Your task to perform on an android device: Search for seafood restaurants on Google Maps Image 0: 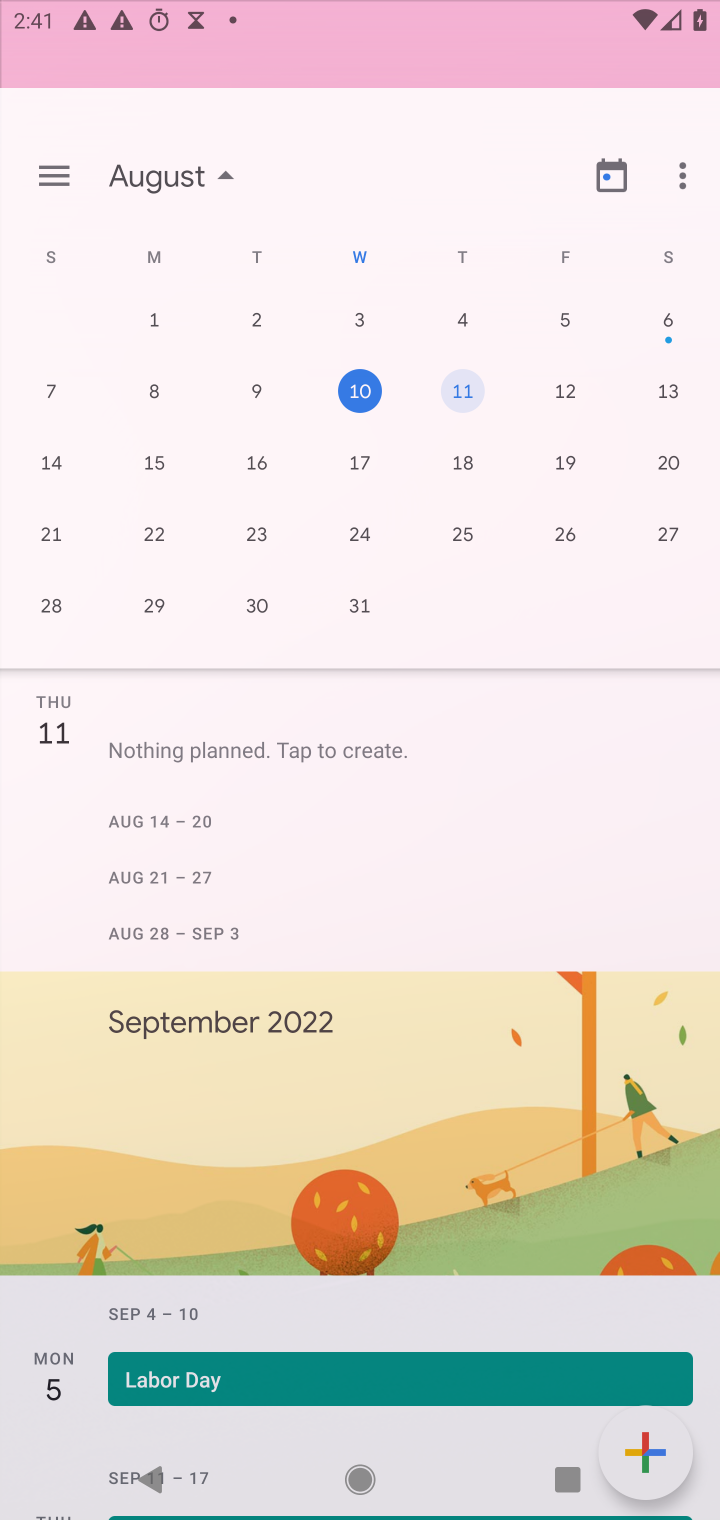
Step 0: press home button
Your task to perform on an android device: Search for seafood restaurants on Google Maps Image 1: 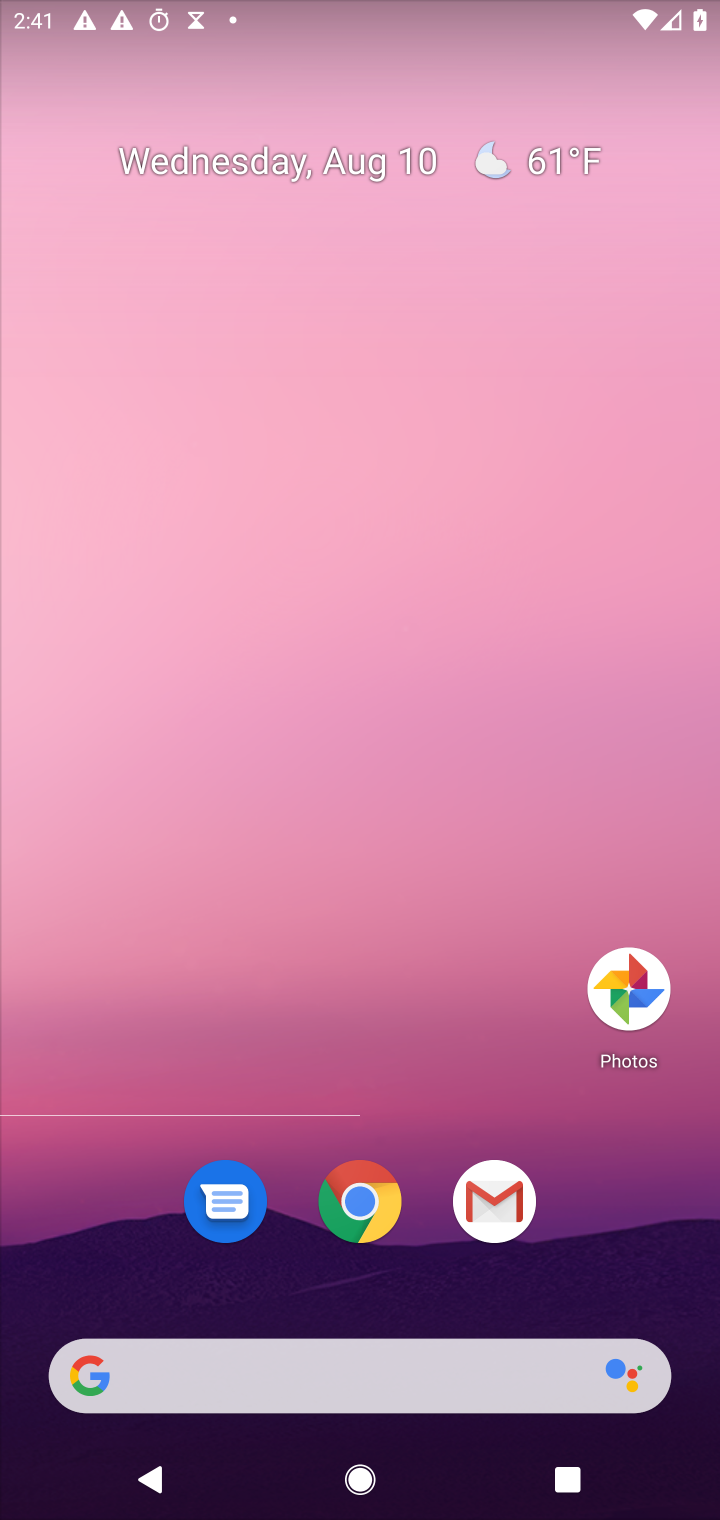
Step 1: drag from (288, 1285) to (253, 349)
Your task to perform on an android device: Search for seafood restaurants on Google Maps Image 2: 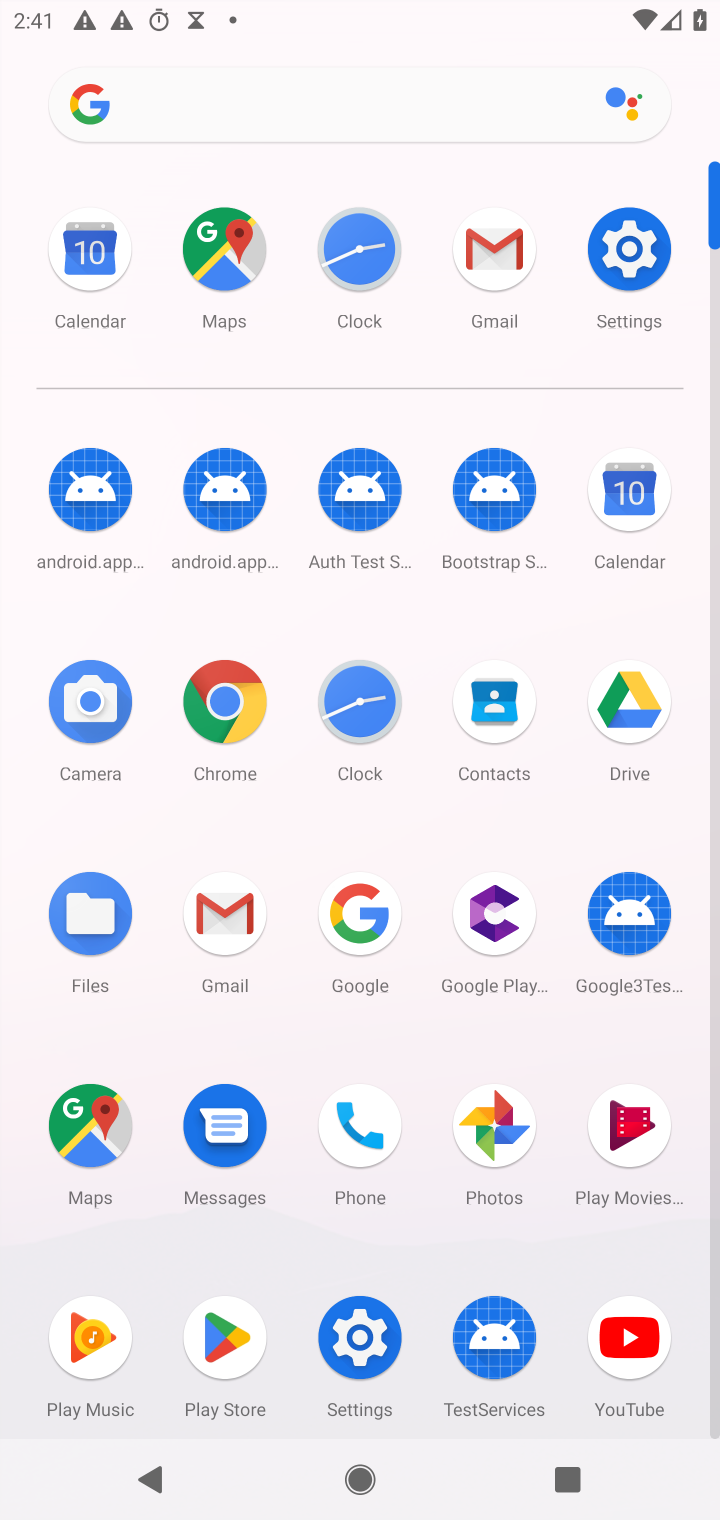
Step 2: click (68, 1136)
Your task to perform on an android device: Search for seafood restaurants on Google Maps Image 3: 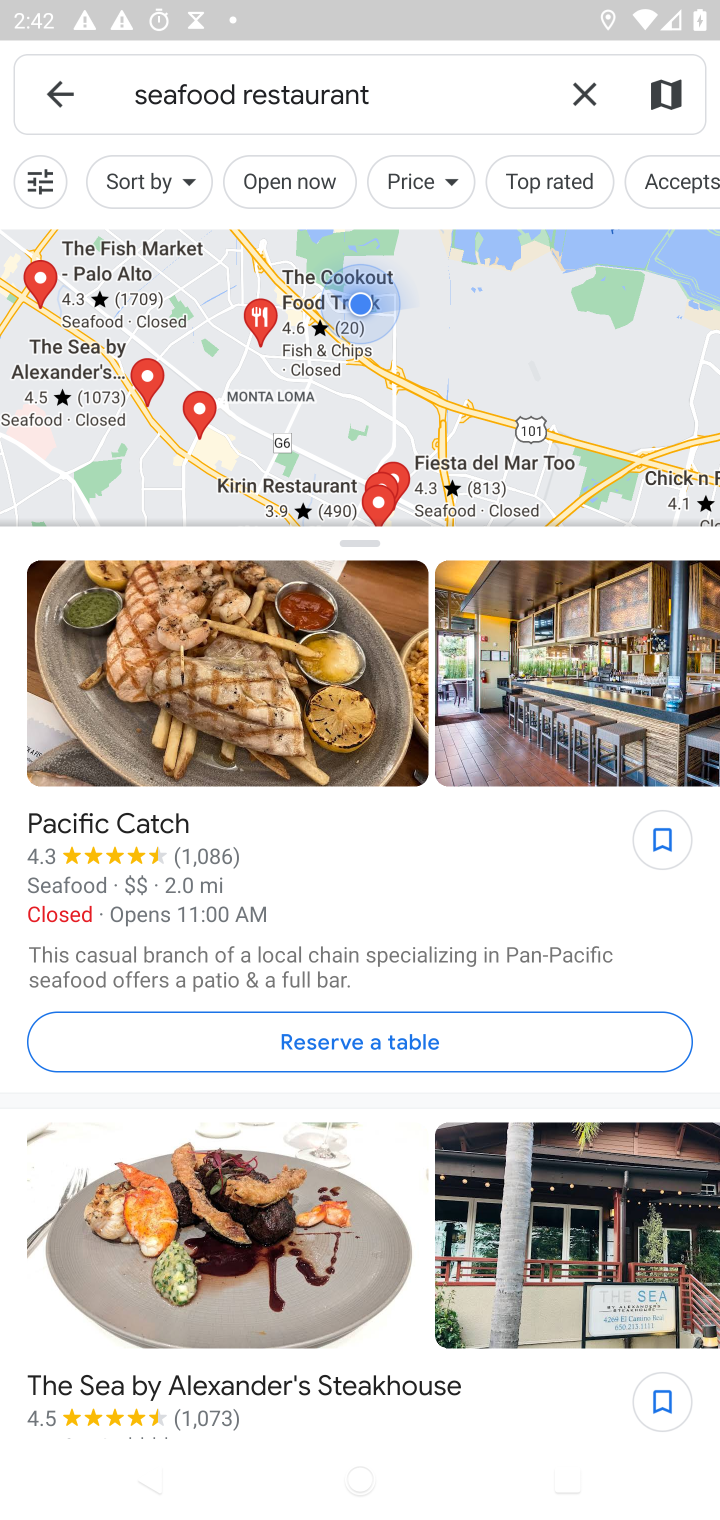
Step 3: task complete